Your task to perform on an android device: change alarm snooze length Image 0: 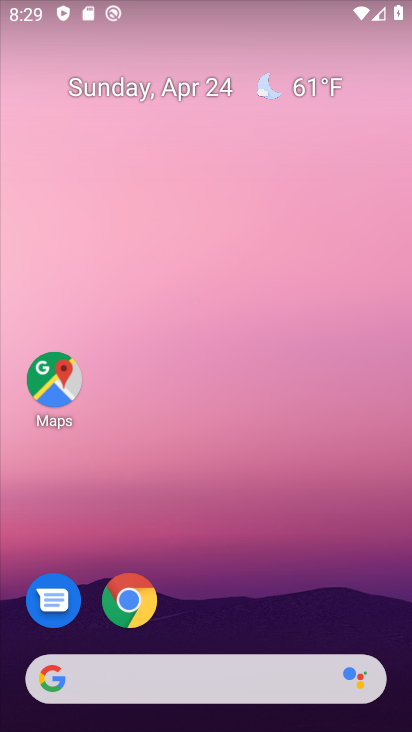
Step 0: drag from (225, 722) to (214, 126)
Your task to perform on an android device: change alarm snooze length Image 1: 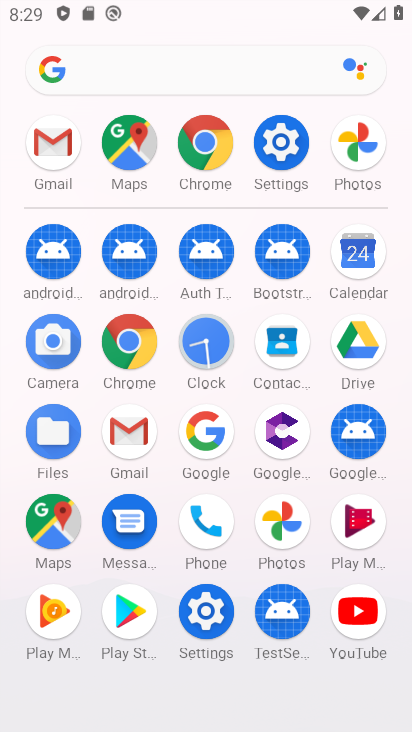
Step 1: click (201, 347)
Your task to perform on an android device: change alarm snooze length Image 2: 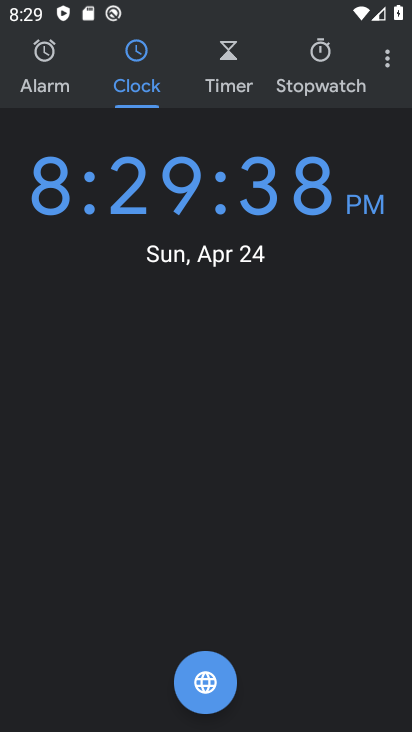
Step 2: click (388, 65)
Your task to perform on an android device: change alarm snooze length Image 3: 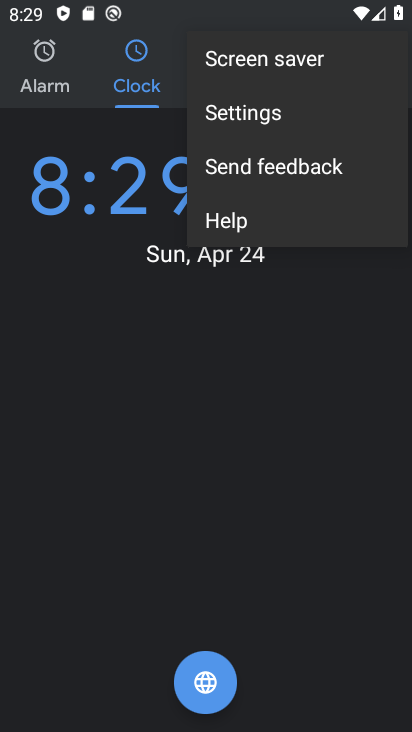
Step 3: click (243, 110)
Your task to perform on an android device: change alarm snooze length Image 4: 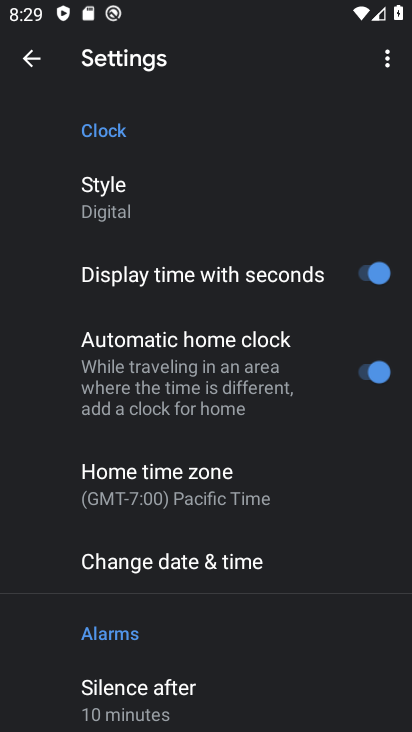
Step 4: drag from (194, 667) to (218, 365)
Your task to perform on an android device: change alarm snooze length Image 5: 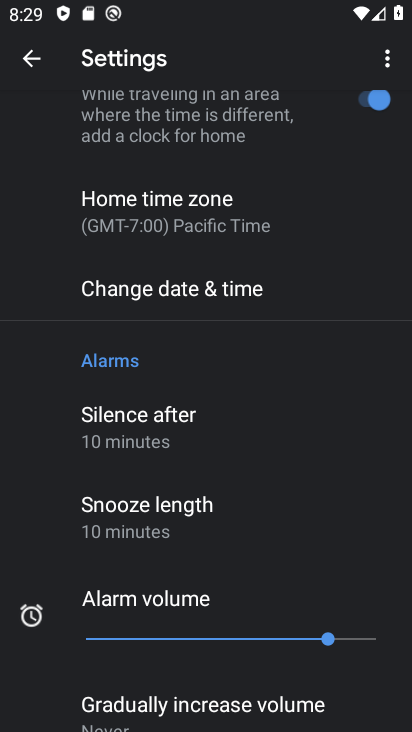
Step 5: click (139, 514)
Your task to perform on an android device: change alarm snooze length Image 6: 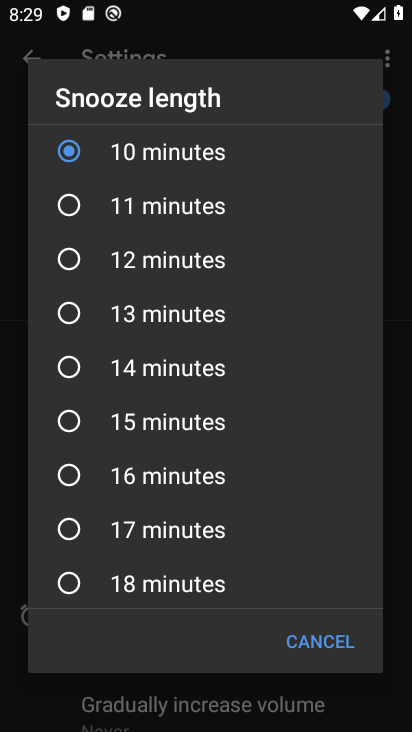
Step 6: click (72, 525)
Your task to perform on an android device: change alarm snooze length Image 7: 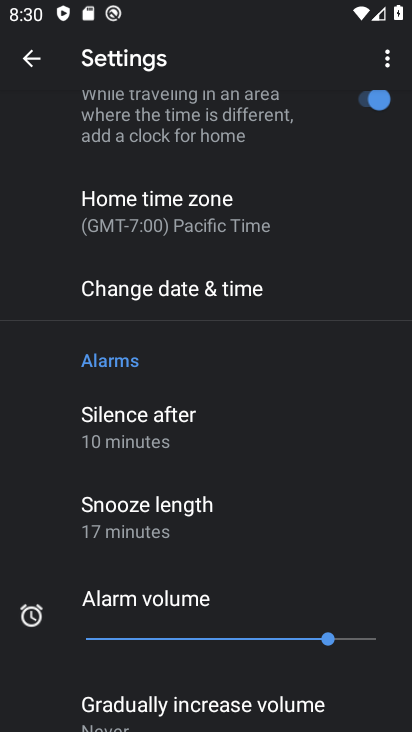
Step 7: task complete